Your task to perform on an android device: Set the phone to "Do not disturb". Image 0: 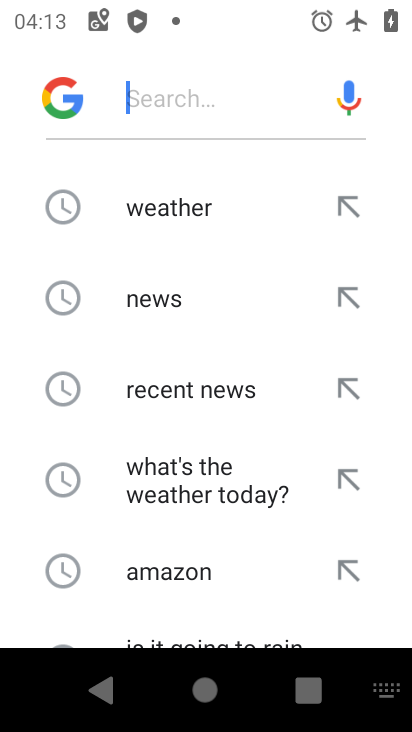
Step 0: press home button
Your task to perform on an android device: Set the phone to "Do not disturb". Image 1: 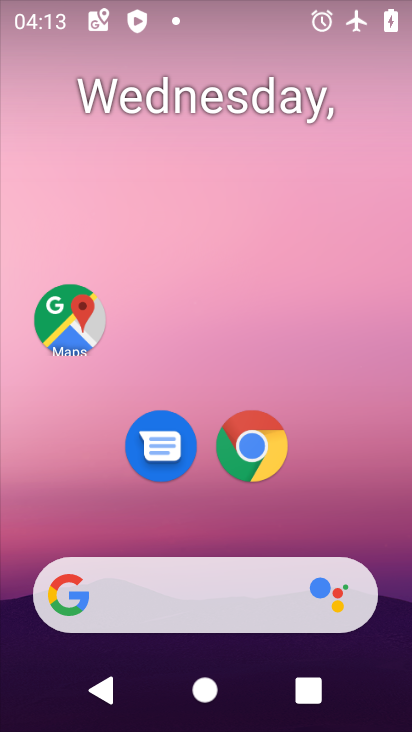
Step 1: drag from (228, 528) to (201, 192)
Your task to perform on an android device: Set the phone to "Do not disturb". Image 2: 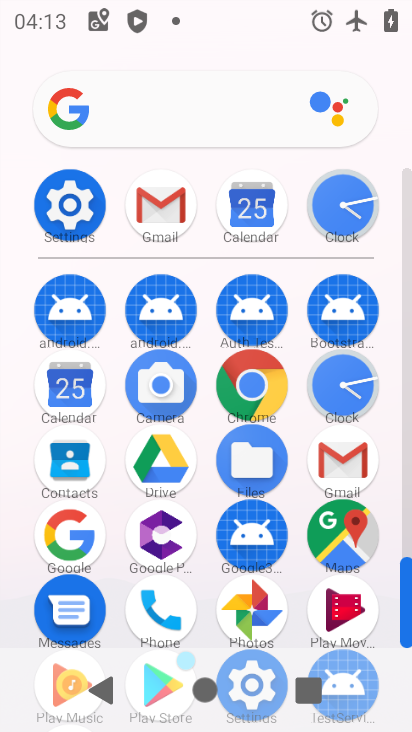
Step 2: click (77, 207)
Your task to perform on an android device: Set the phone to "Do not disturb". Image 3: 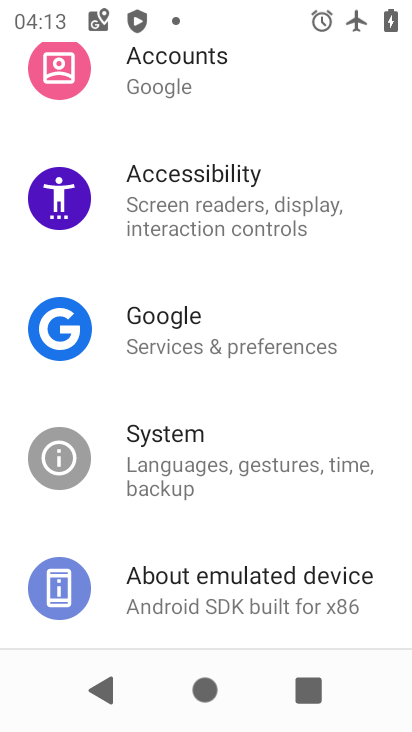
Step 3: drag from (235, 212) to (254, 455)
Your task to perform on an android device: Set the phone to "Do not disturb". Image 4: 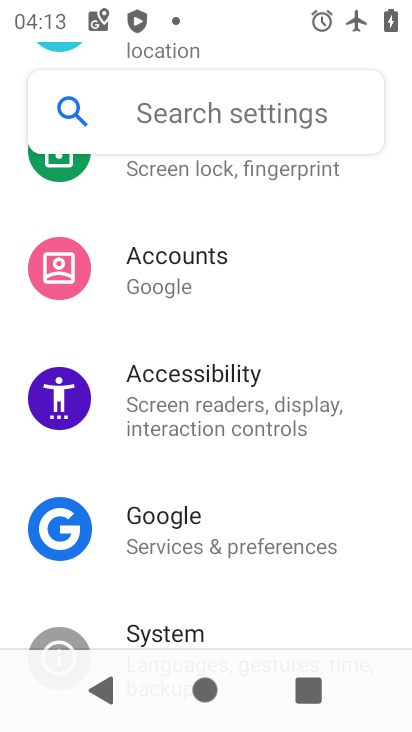
Step 4: drag from (272, 221) to (309, 494)
Your task to perform on an android device: Set the phone to "Do not disturb". Image 5: 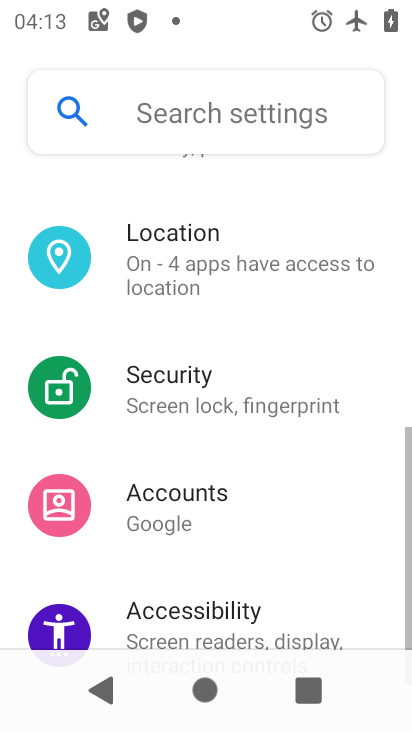
Step 5: drag from (262, 235) to (269, 435)
Your task to perform on an android device: Set the phone to "Do not disturb". Image 6: 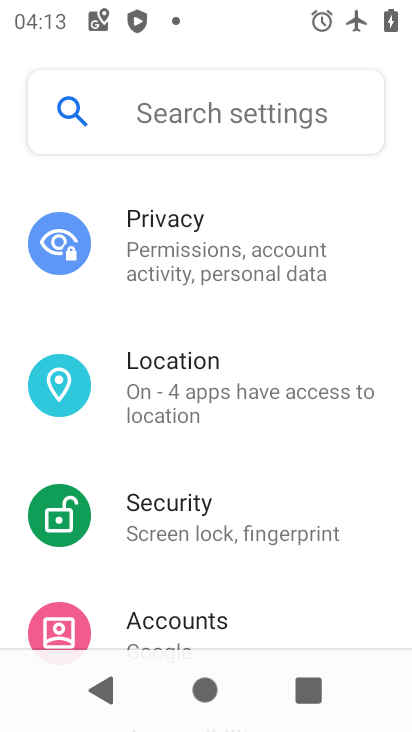
Step 6: drag from (229, 264) to (262, 548)
Your task to perform on an android device: Set the phone to "Do not disturb". Image 7: 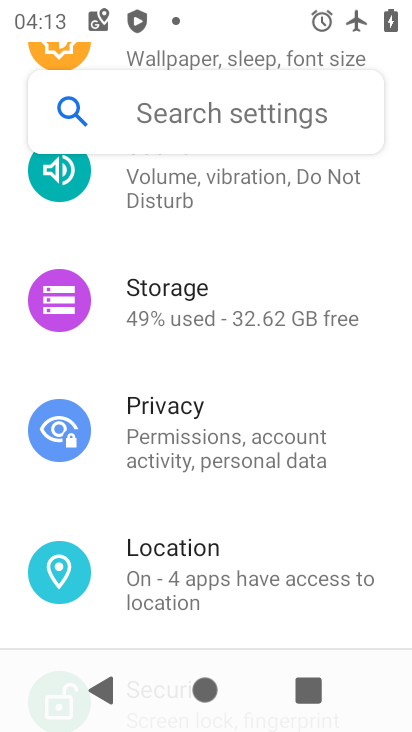
Step 7: drag from (235, 264) to (249, 453)
Your task to perform on an android device: Set the phone to "Do not disturb". Image 8: 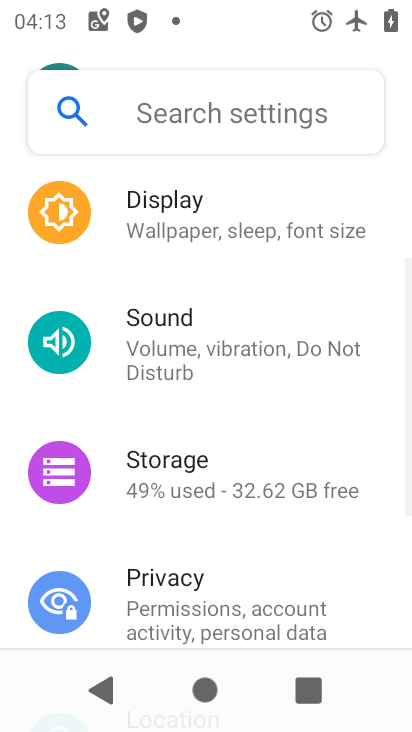
Step 8: click (229, 334)
Your task to perform on an android device: Set the phone to "Do not disturb". Image 9: 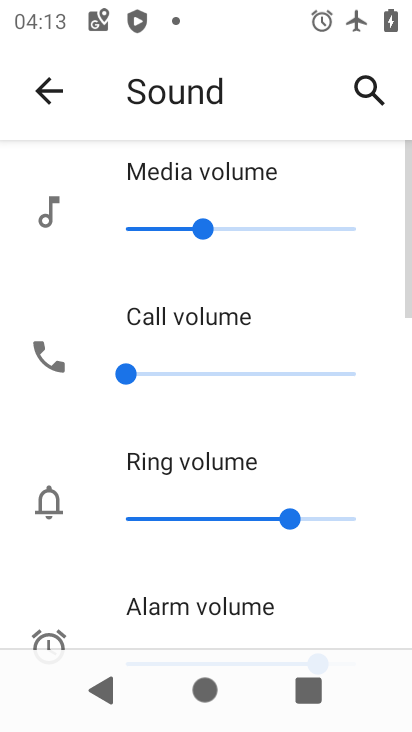
Step 9: drag from (223, 548) to (231, 227)
Your task to perform on an android device: Set the phone to "Do not disturb". Image 10: 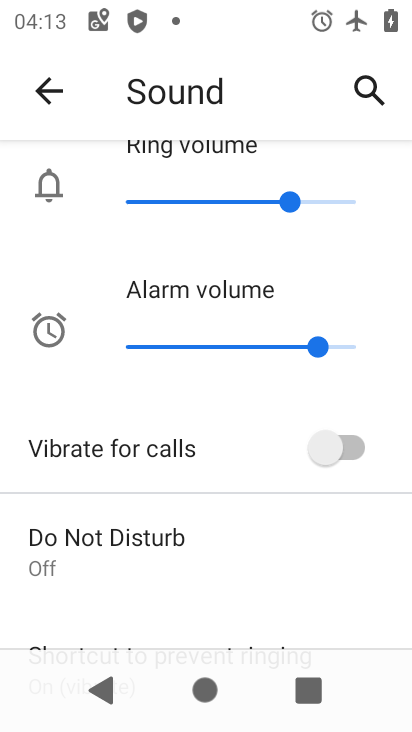
Step 10: click (215, 537)
Your task to perform on an android device: Set the phone to "Do not disturb". Image 11: 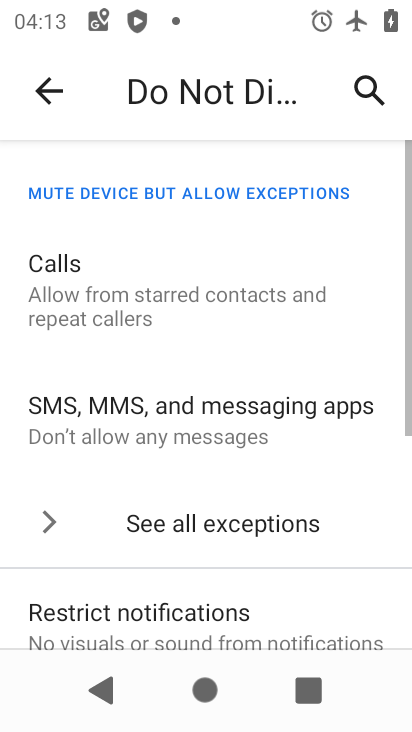
Step 11: drag from (218, 601) to (182, 226)
Your task to perform on an android device: Set the phone to "Do not disturb". Image 12: 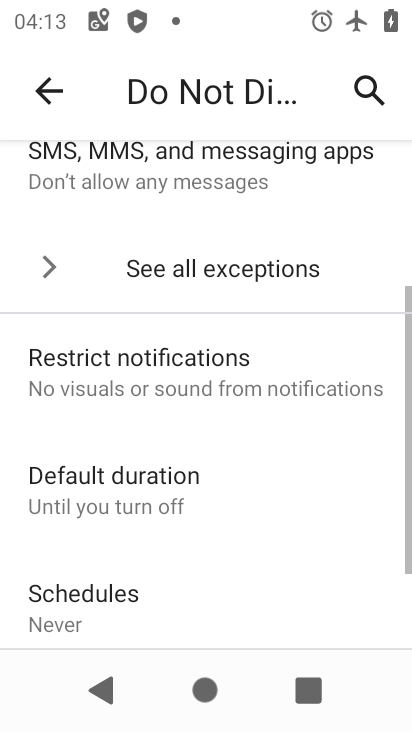
Step 12: drag from (198, 504) to (204, 202)
Your task to perform on an android device: Set the phone to "Do not disturb". Image 13: 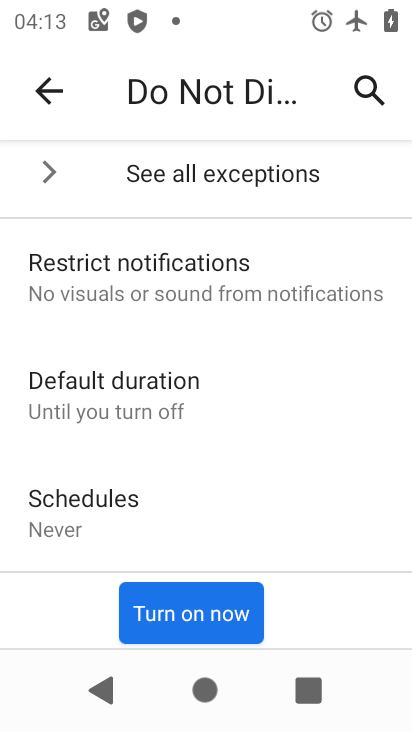
Step 13: click (225, 624)
Your task to perform on an android device: Set the phone to "Do not disturb". Image 14: 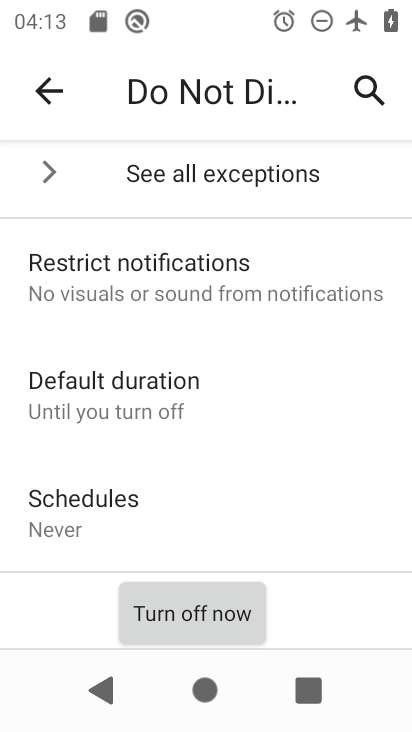
Step 14: task complete